Your task to perform on an android device: turn pop-ups off in chrome Image 0: 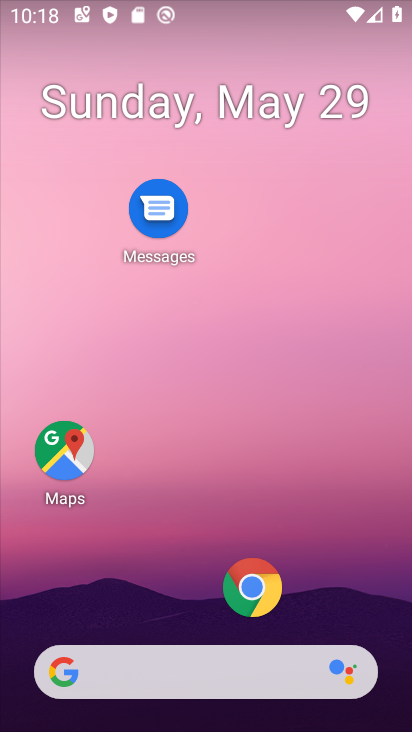
Step 0: click (271, 588)
Your task to perform on an android device: turn pop-ups off in chrome Image 1: 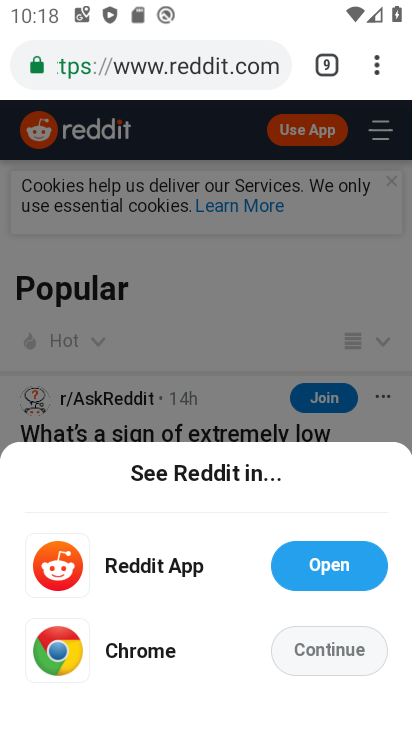
Step 1: drag from (369, 54) to (162, 662)
Your task to perform on an android device: turn pop-ups off in chrome Image 2: 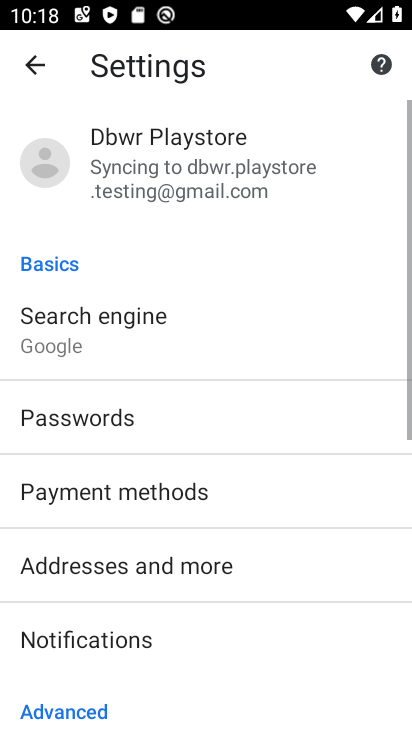
Step 2: drag from (191, 645) to (305, 156)
Your task to perform on an android device: turn pop-ups off in chrome Image 3: 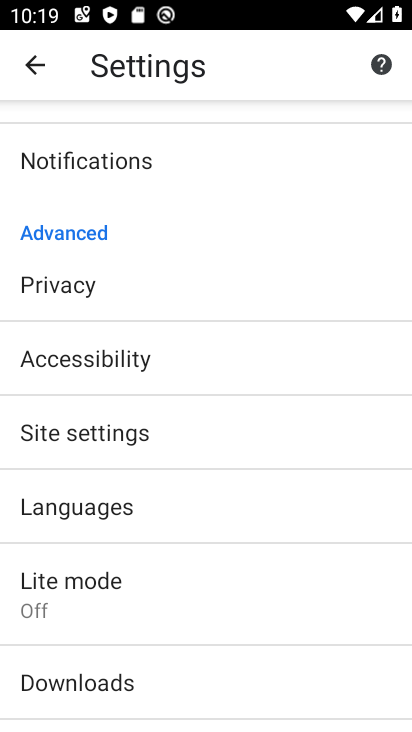
Step 3: click (174, 437)
Your task to perform on an android device: turn pop-ups off in chrome Image 4: 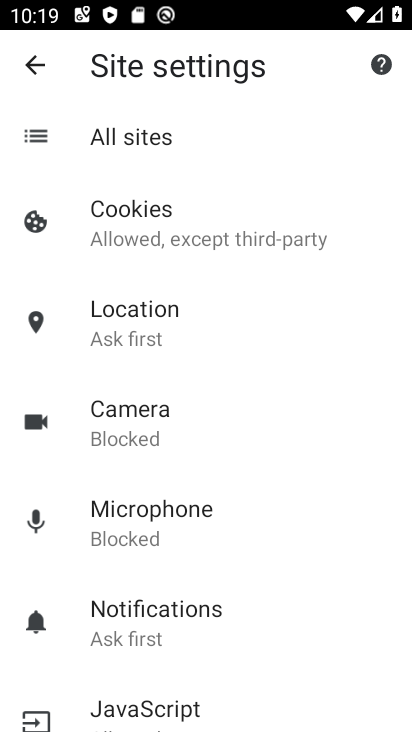
Step 4: drag from (161, 696) to (337, 136)
Your task to perform on an android device: turn pop-ups off in chrome Image 5: 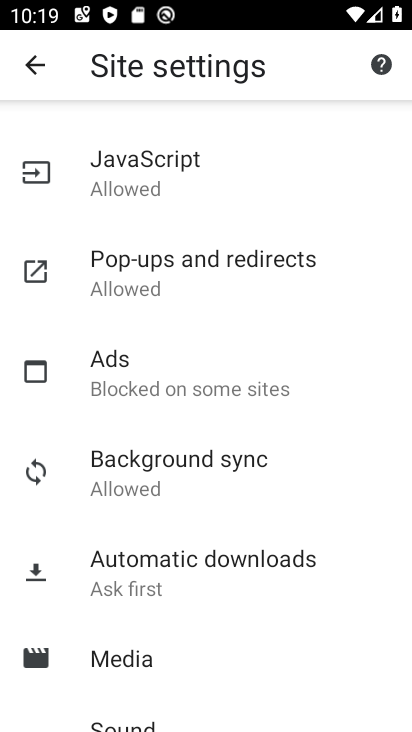
Step 5: click (153, 290)
Your task to perform on an android device: turn pop-ups off in chrome Image 6: 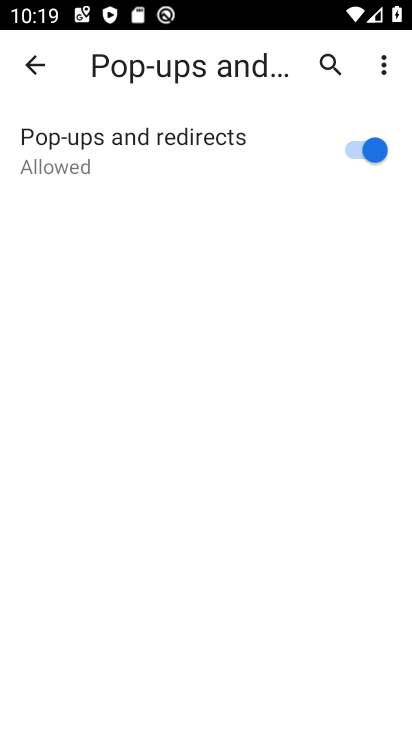
Step 6: click (366, 146)
Your task to perform on an android device: turn pop-ups off in chrome Image 7: 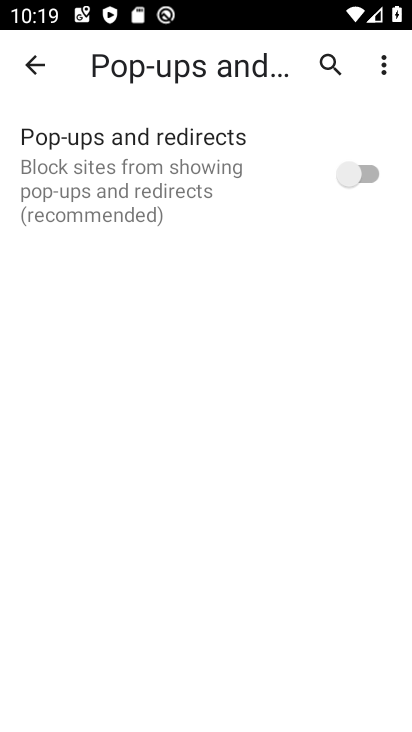
Step 7: task complete